Your task to perform on an android device: open app "Reddit" (install if not already installed) and enter user name: "issues@yahoo.com" and password: "belt" Image 0: 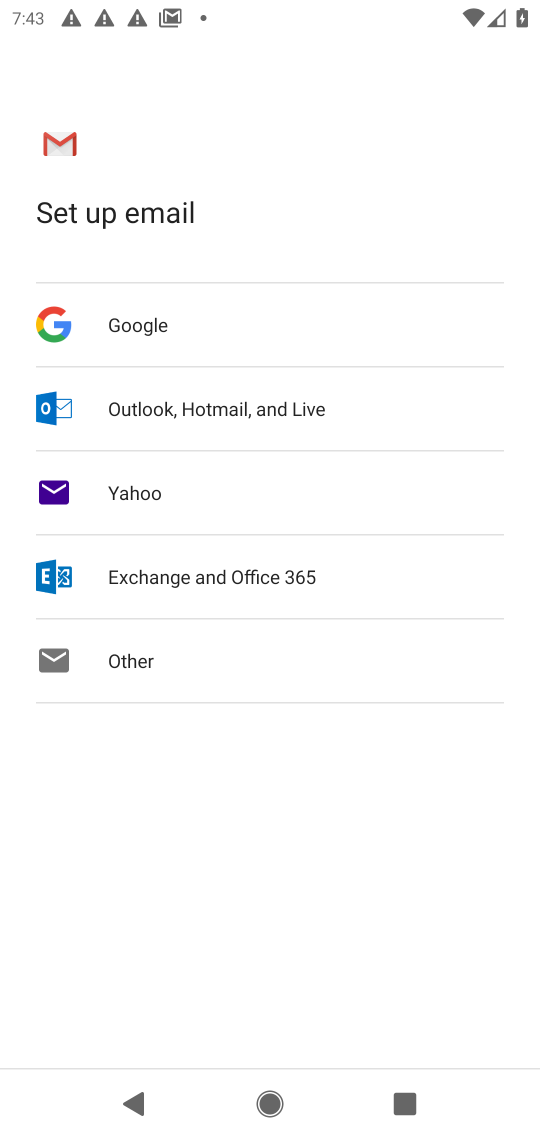
Step 0: press home button
Your task to perform on an android device: open app "Reddit" (install if not already installed) and enter user name: "issues@yahoo.com" and password: "belt" Image 1: 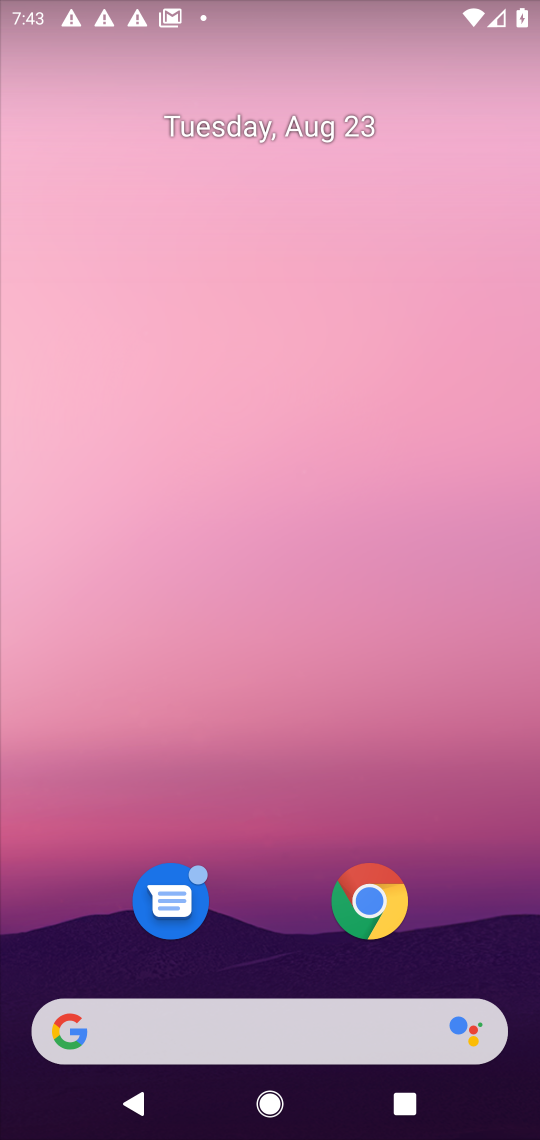
Step 1: drag from (239, 989) to (420, 18)
Your task to perform on an android device: open app "Reddit" (install if not already installed) and enter user name: "issues@yahoo.com" and password: "belt" Image 2: 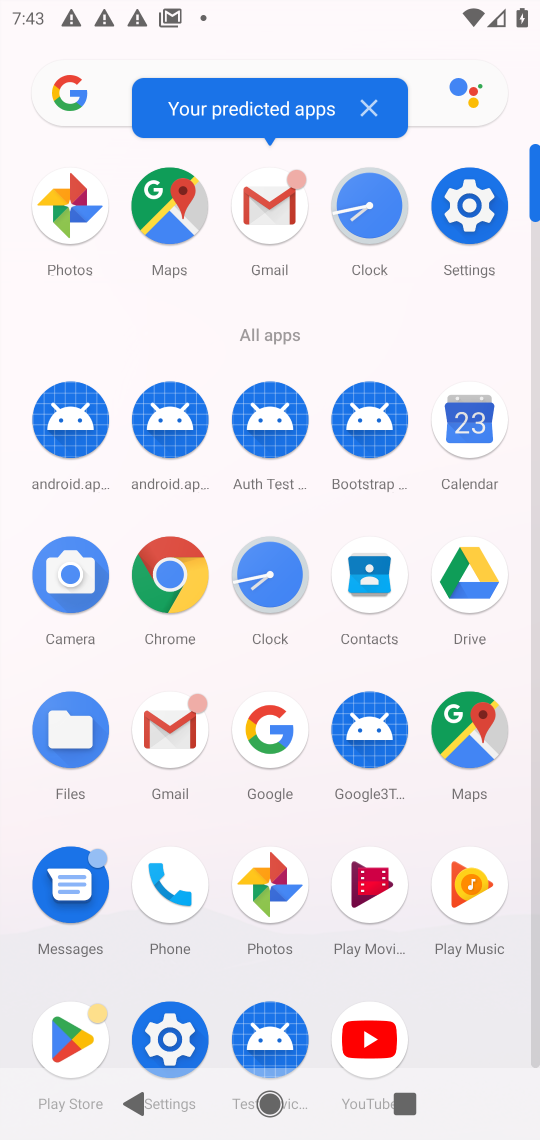
Step 2: click (89, 1013)
Your task to perform on an android device: open app "Reddit" (install if not already installed) and enter user name: "issues@yahoo.com" and password: "belt" Image 3: 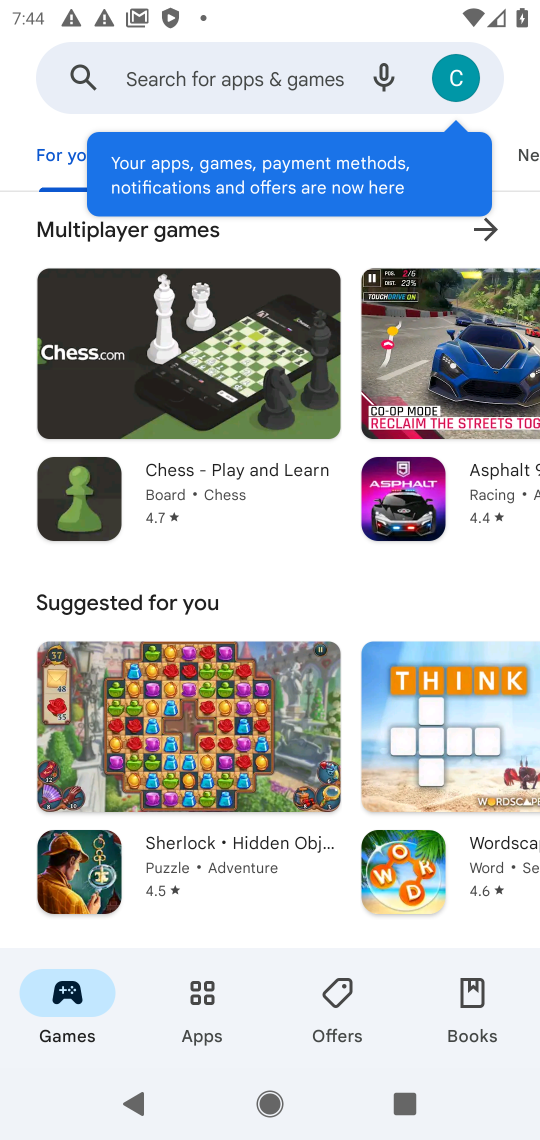
Step 3: click (210, 68)
Your task to perform on an android device: open app "Reddit" (install if not already installed) and enter user name: "issues@yahoo.com" and password: "belt" Image 4: 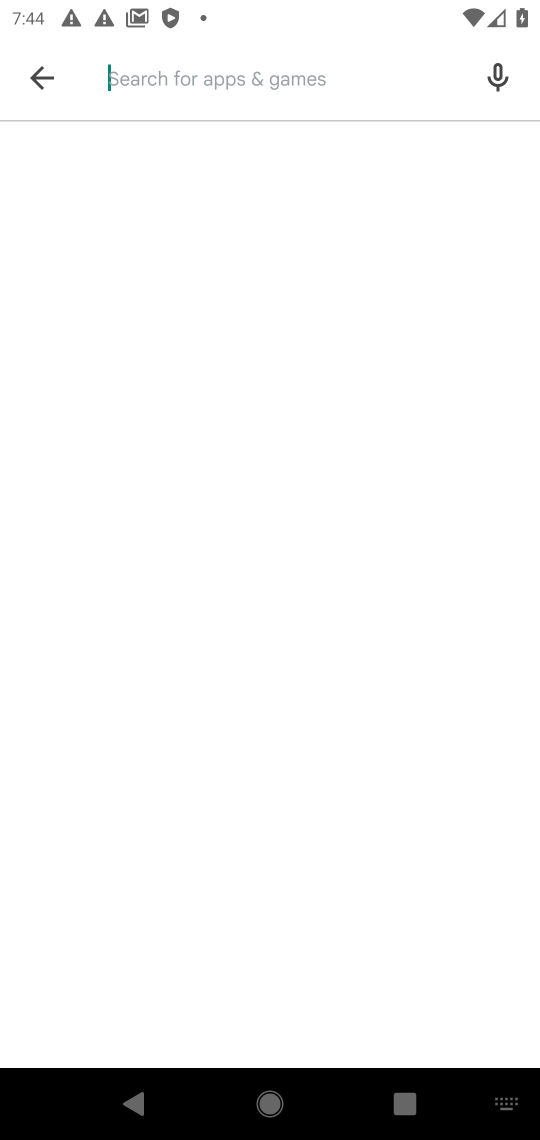
Step 4: type "Reddit"
Your task to perform on an android device: open app "Reddit" (install if not already installed) and enter user name: "issues@yahoo.com" and password: "belt" Image 5: 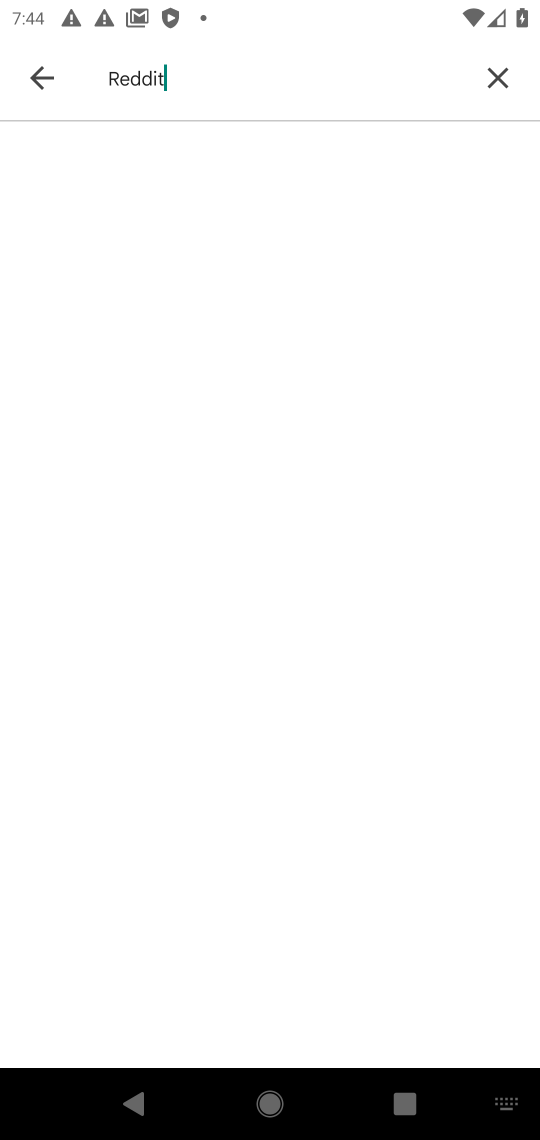
Step 5: press enter
Your task to perform on an android device: open app "Reddit" (install if not already installed) and enter user name: "issues@yahoo.com" and password: "belt" Image 6: 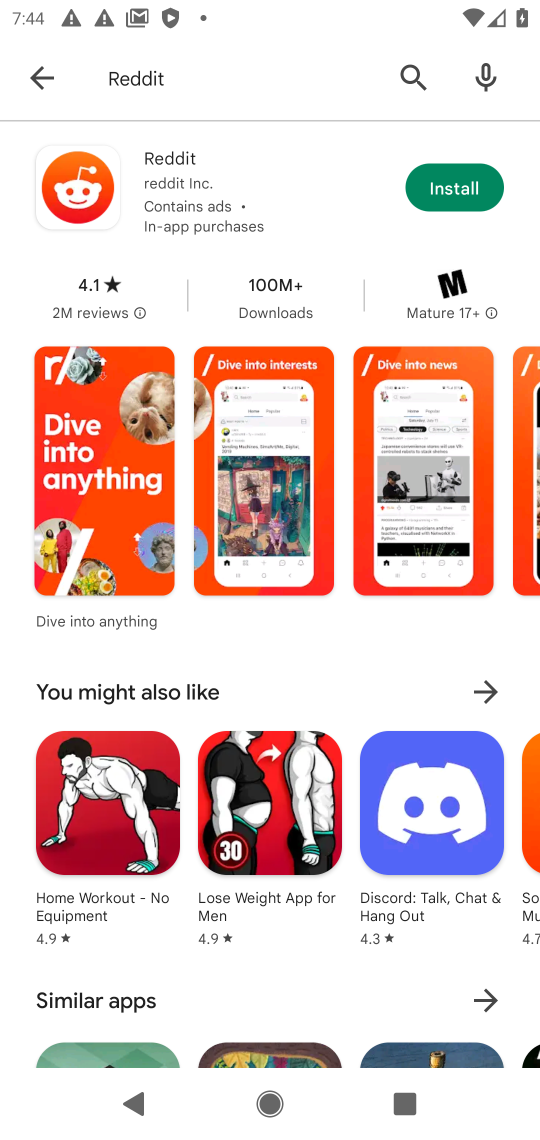
Step 6: click (446, 182)
Your task to perform on an android device: open app "Reddit" (install if not already installed) and enter user name: "issues@yahoo.com" and password: "belt" Image 7: 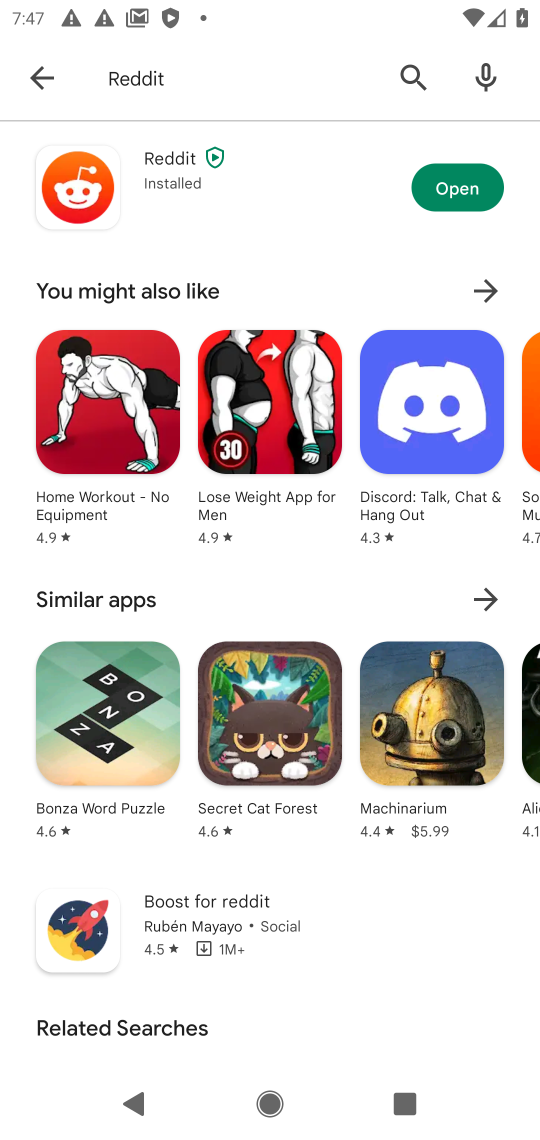
Step 7: click (453, 181)
Your task to perform on an android device: open app "Reddit" (install if not already installed) and enter user name: "issues@yahoo.com" and password: "belt" Image 8: 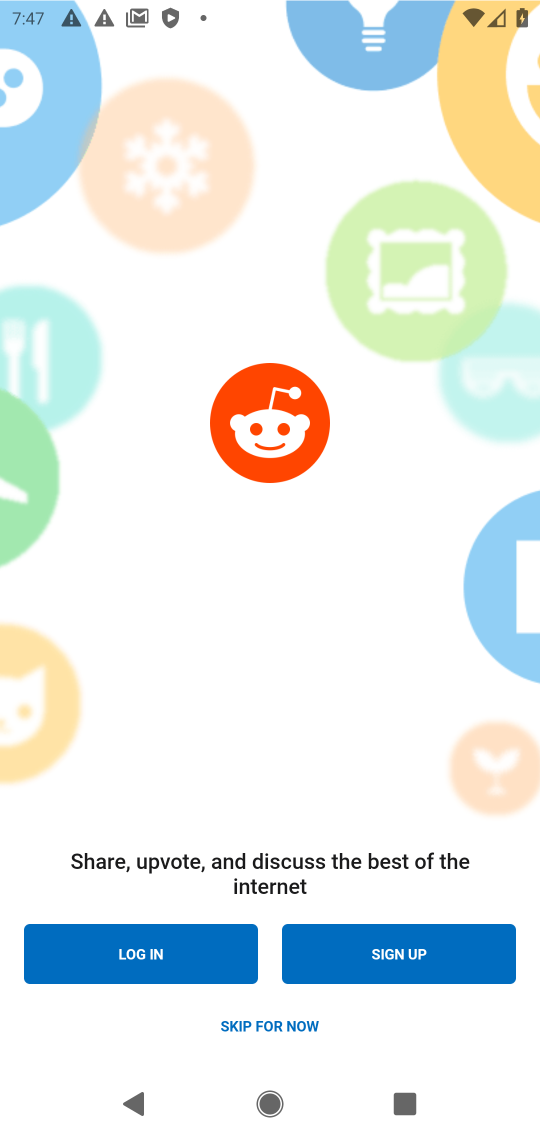
Step 8: click (118, 942)
Your task to perform on an android device: open app "Reddit" (install if not already installed) and enter user name: "issues@yahoo.com" and password: "belt" Image 9: 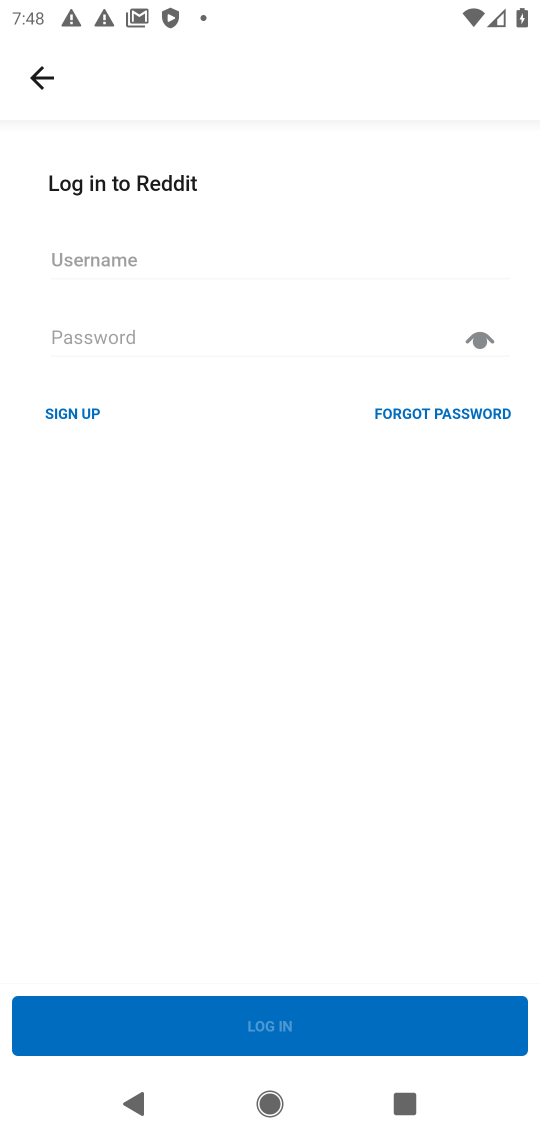
Step 9: click (168, 263)
Your task to perform on an android device: open app "Reddit" (install if not already installed) and enter user name: "issues@yahoo.com" and password: "belt" Image 10: 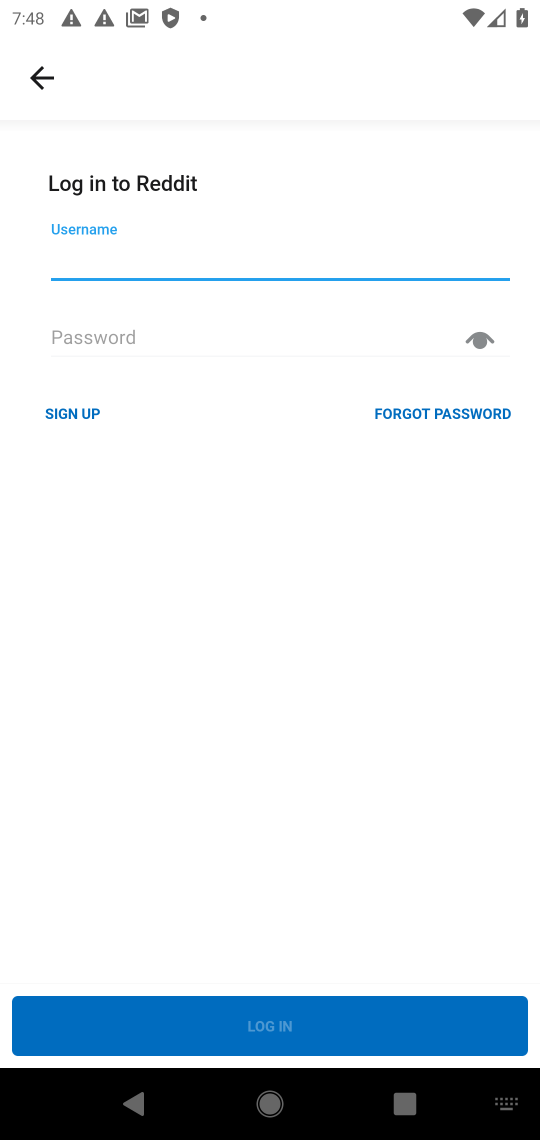
Step 10: type "issues@yahoo.com"
Your task to perform on an android device: open app "Reddit" (install if not already installed) and enter user name: "issues@yahoo.com" and password: "belt" Image 11: 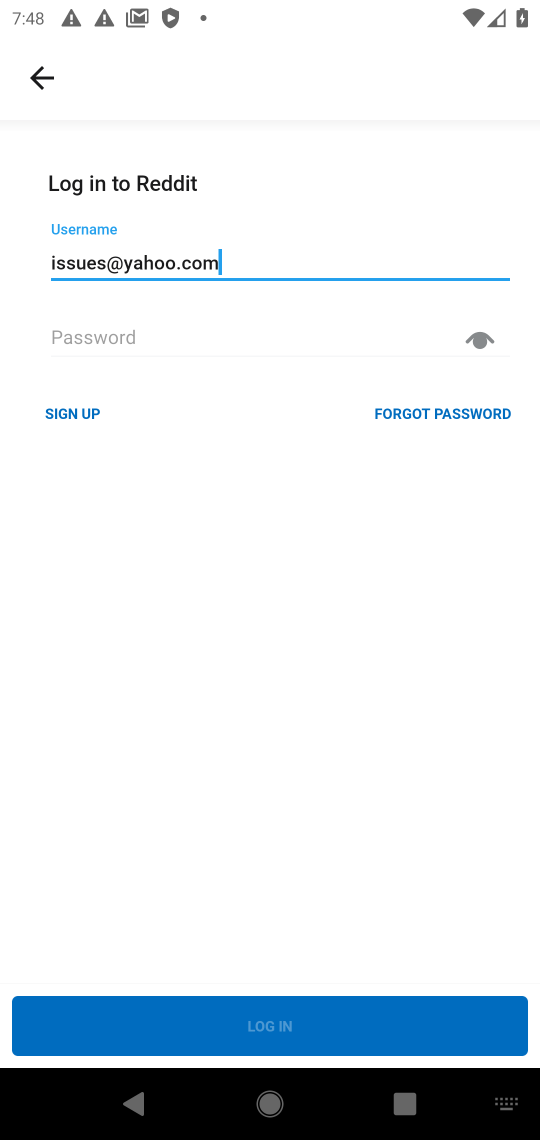
Step 11: press enter
Your task to perform on an android device: open app "Reddit" (install if not already installed) and enter user name: "issues@yahoo.com" and password: "belt" Image 12: 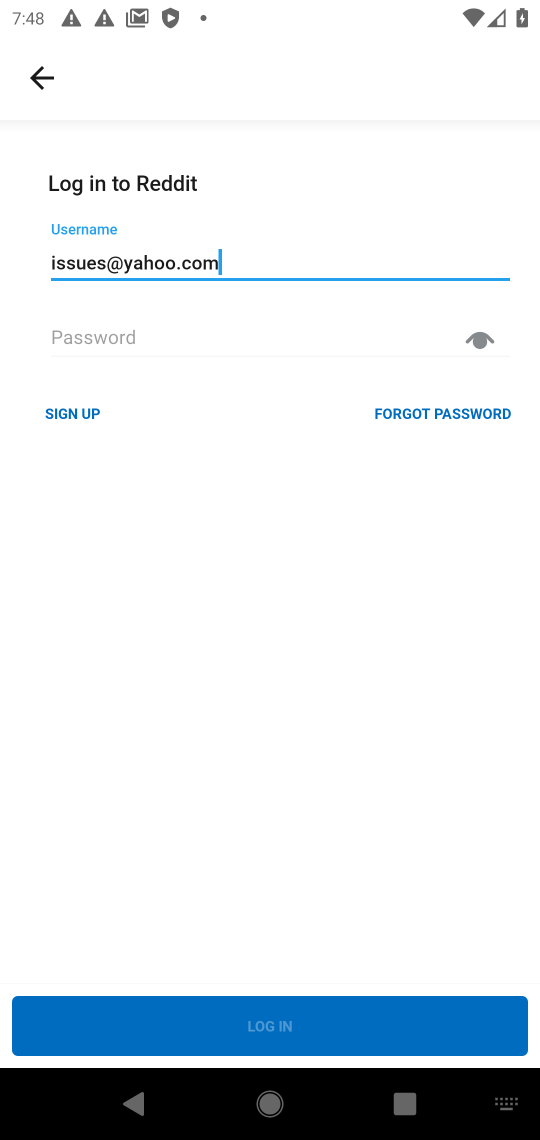
Step 12: click (78, 330)
Your task to perform on an android device: open app "Reddit" (install if not already installed) and enter user name: "issues@yahoo.com" and password: "belt" Image 13: 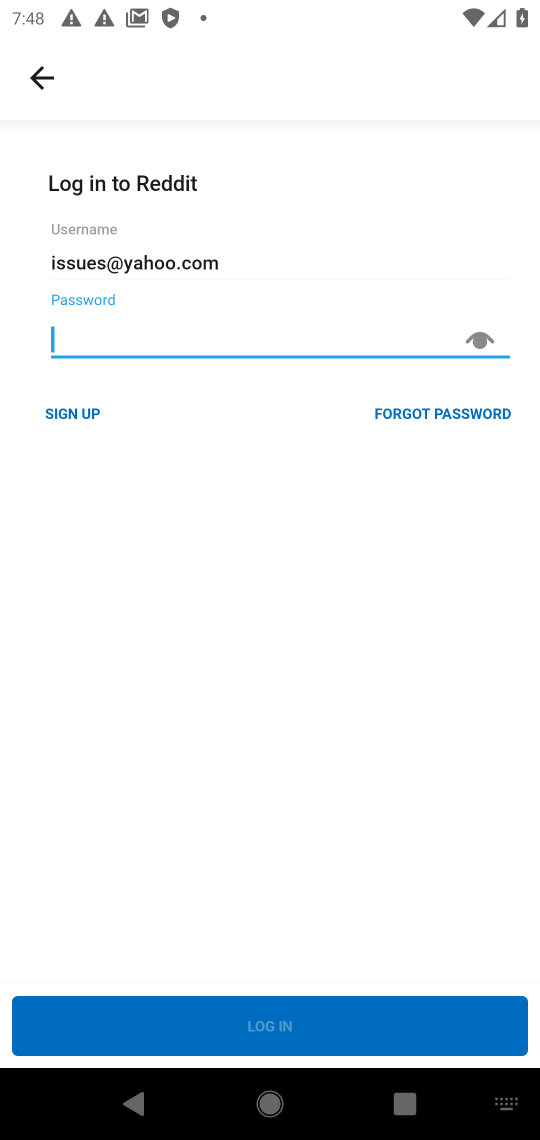
Step 13: type "belt"
Your task to perform on an android device: open app "Reddit" (install if not already installed) and enter user name: "issues@yahoo.com" and password: "belt" Image 14: 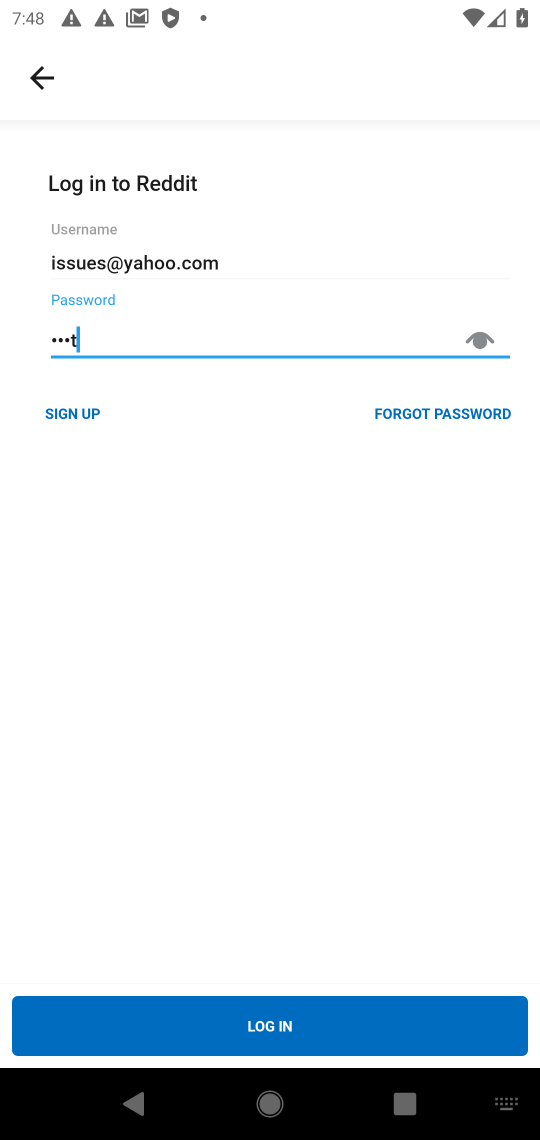
Step 14: press enter
Your task to perform on an android device: open app "Reddit" (install if not already installed) and enter user name: "issues@yahoo.com" and password: "belt" Image 15: 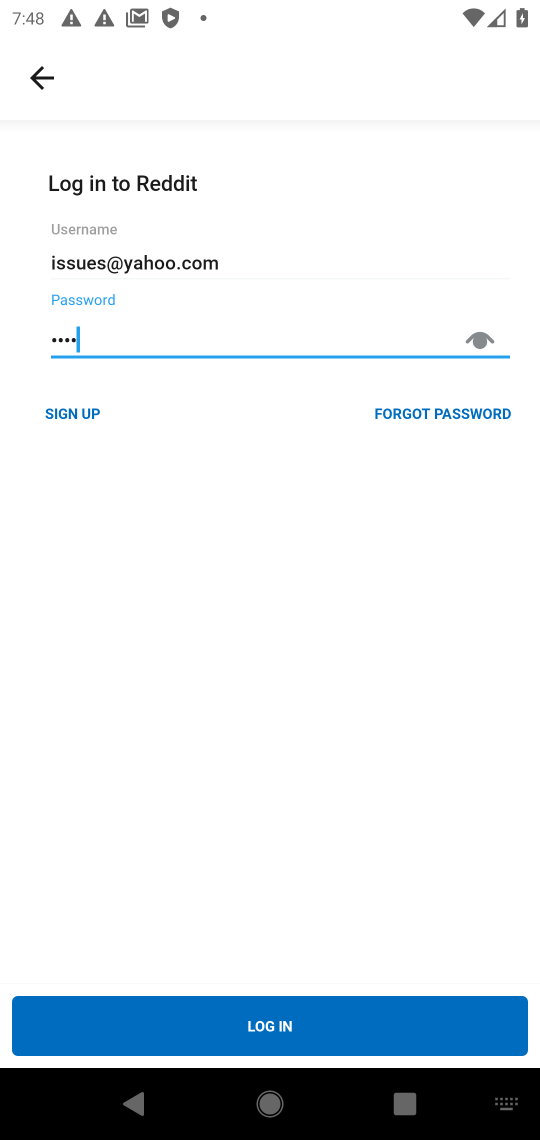
Step 15: task complete